Your task to perform on an android device: open a bookmark in the chrome app Image 0: 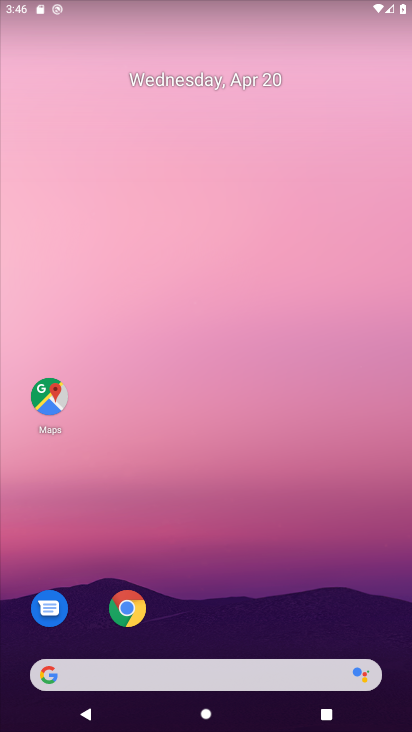
Step 0: drag from (246, 695) to (232, 163)
Your task to perform on an android device: open a bookmark in the chrome app Image 1: 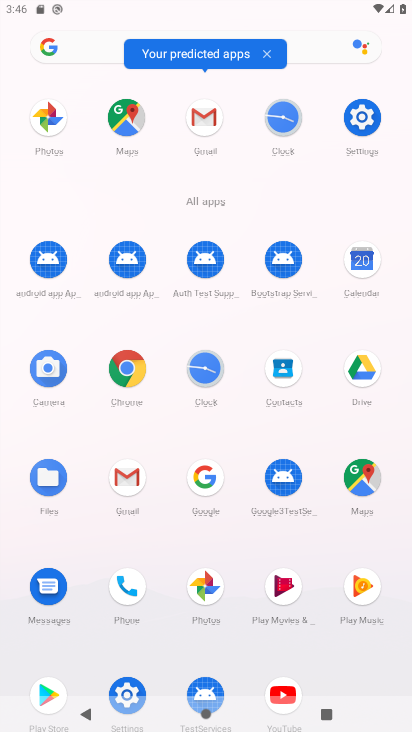
Step 1: click (125, 361)
Your task to perform on an android device: open a bookmark in the chrome app Image 2: 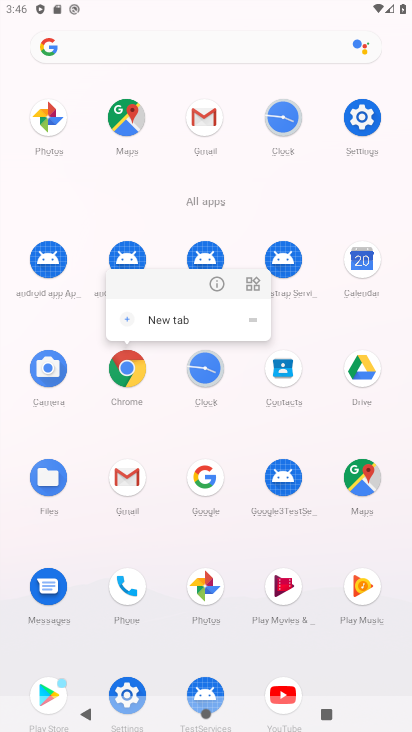
Step 2: click (125, 361)
Your task to perform on an android device: open a bookmark in the chrome app Image 3: 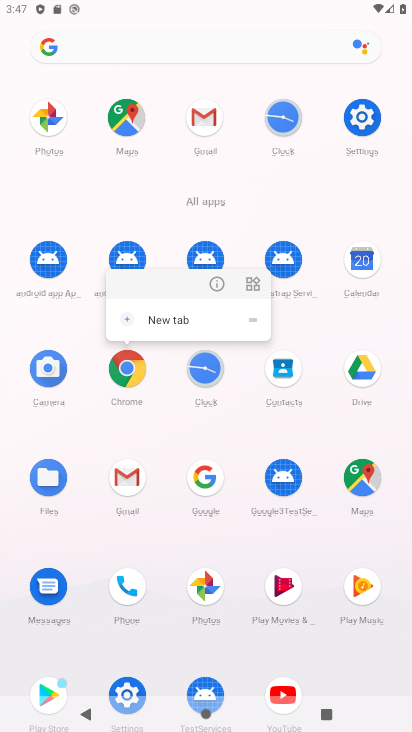
Step 3: click (123, 360)
Your task to perform on an android device: open a bookmark in the chrome app Image 4: 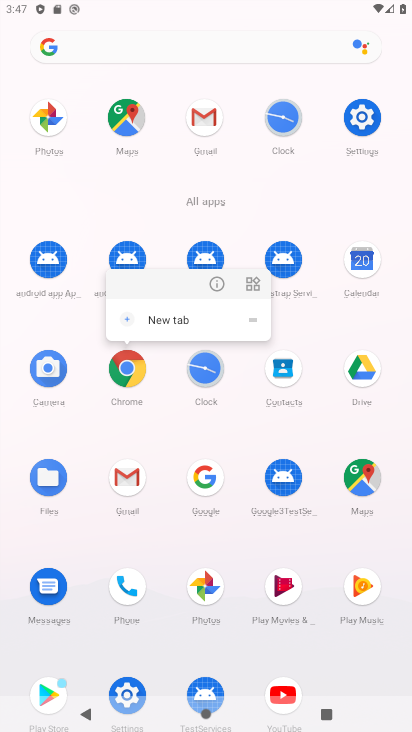
Step 4: click (123, 360)
Your task to perform on an android device: open a bookmark in the chrome app Image 5: 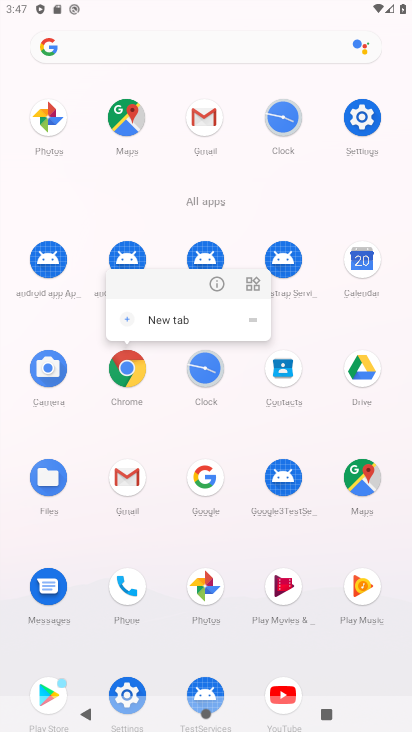
Step 5: click (123, 360)
Your task to perform on an android device: open a bookmark in the chrome app Image 6: 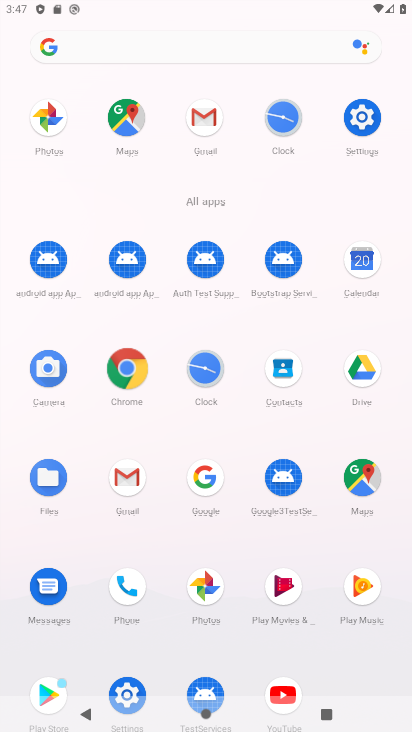
Step 6: click (123, 360)
Your task to perform on an android device: open a bookmark in the chrome app Image 7: 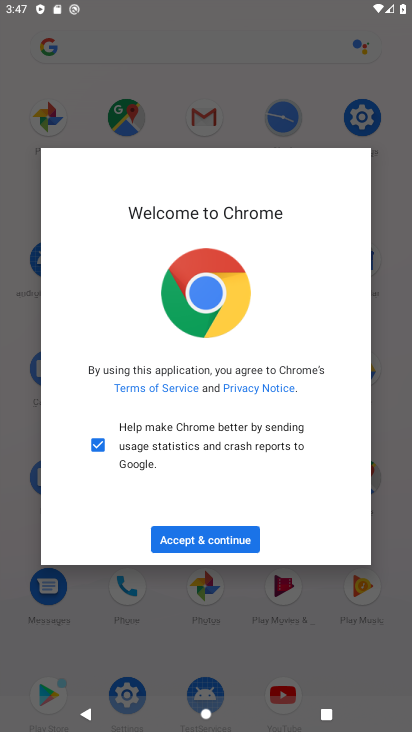
Step 7: click (205, 543)
Your task to perform on an android device: open a bookmark in the chrome app Image 8: 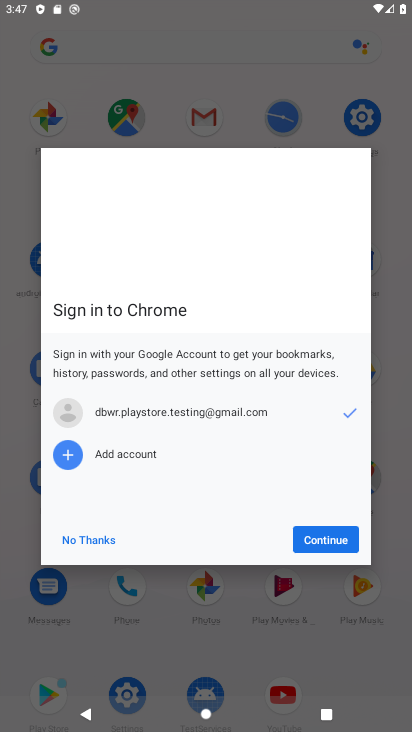
Step 8: click (309, 541)
Your task to perform on an android device: open a bookmark in the chrome app Image 9: 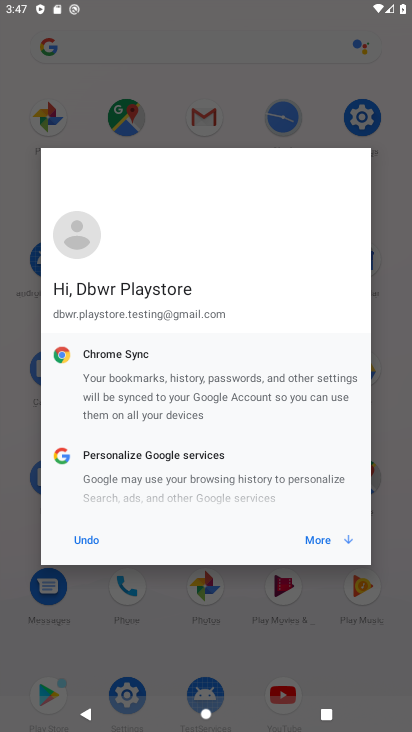
Step 9: click (335, 530)
Your task to perform on an android device: open a bookmark in the chrome app Image 10: 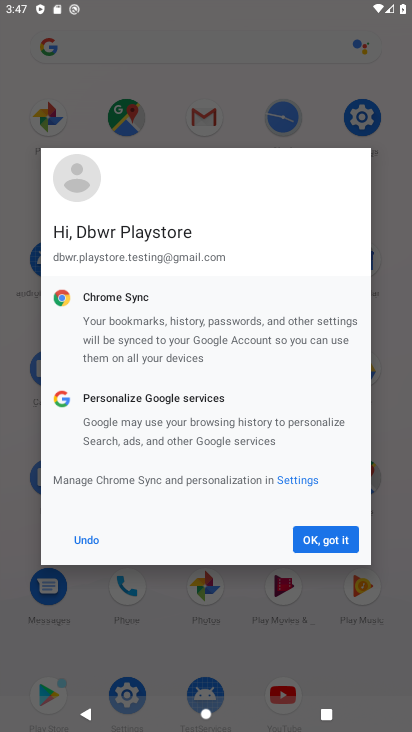
Step 10: click (326, 535)
Your task to perform on an android device: open a bookmark in the chrome app Image 11: 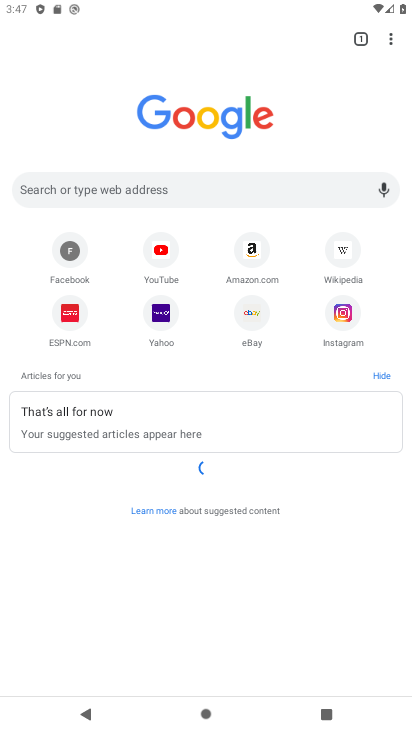
Step 11: click (389, 41)
Your task to perform on an android device: open a bookmark in the chrome app Image 12: 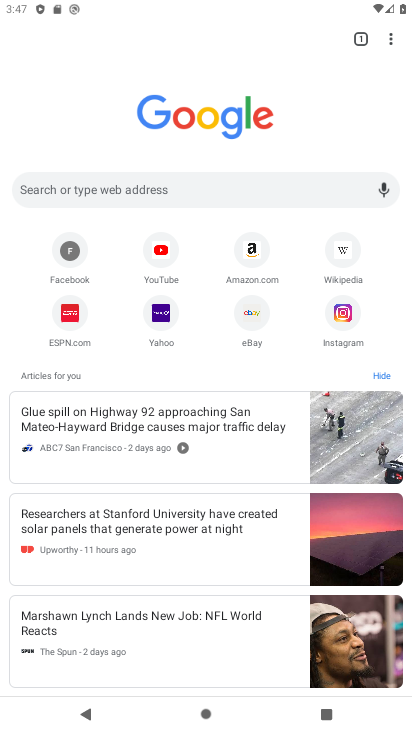
Step 12: click (391, 36)
Your task to perform on an android device: open a bookmark in the chrome app Image 13: 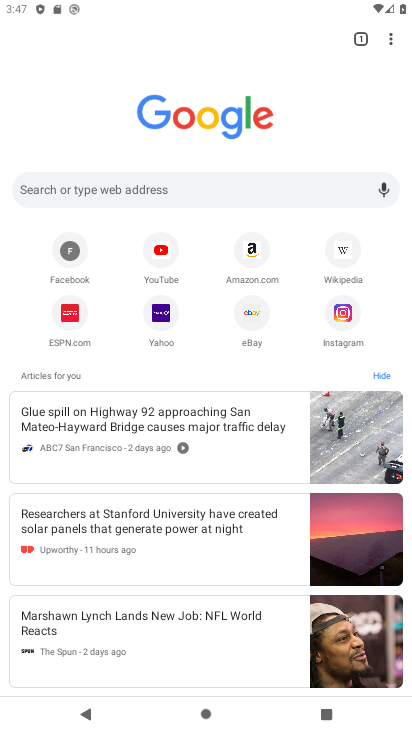
Step 13: click (387, 43)
Your task to perform on an android device: open a bookmark in the chrome app Image 14: 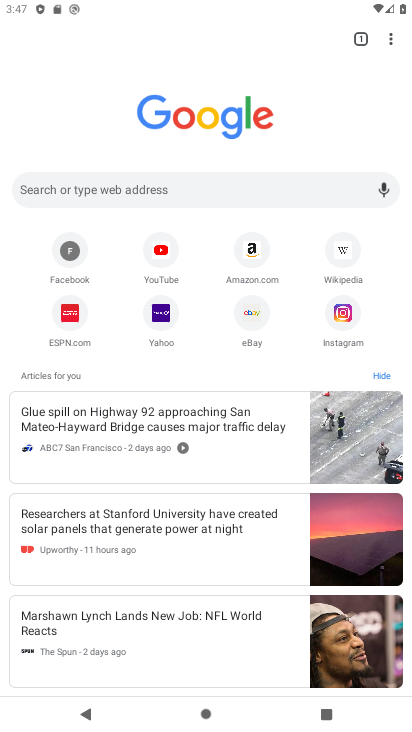
Step 14: click (386, 37)
Your task to perform on an android device: open a bookmark in the chrome app Image 15: 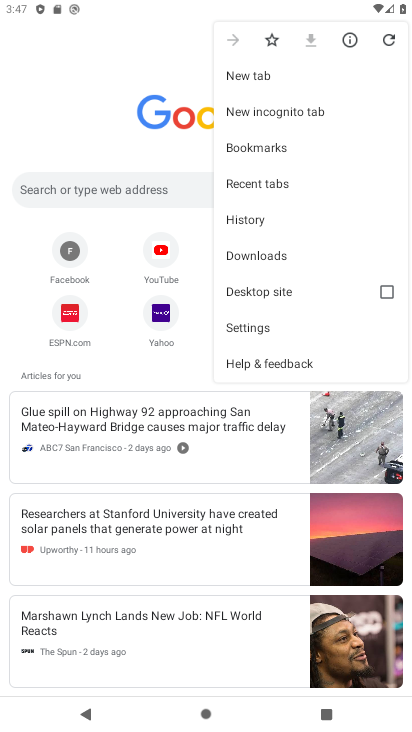
Step 15: click (255, 157)
Your task to perform on an android device: open a bookmark in the chrome app Image 16: 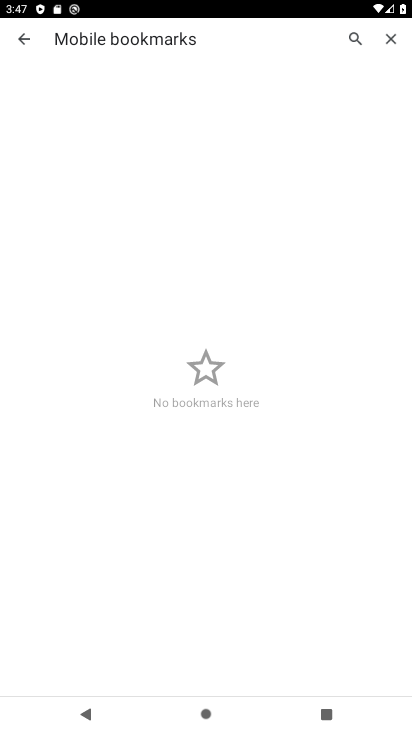
Step 16: task complete